Your task to perform on an android device: What's the weather? Image 0: 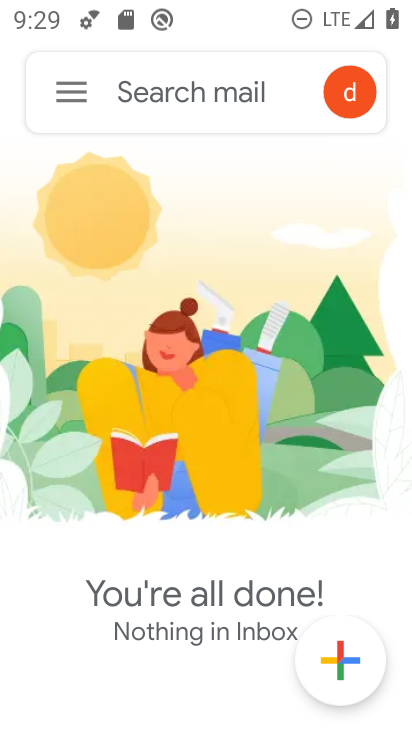
Step 0: press home button
Your task to perform on an android device: What's the weather? Image 1: 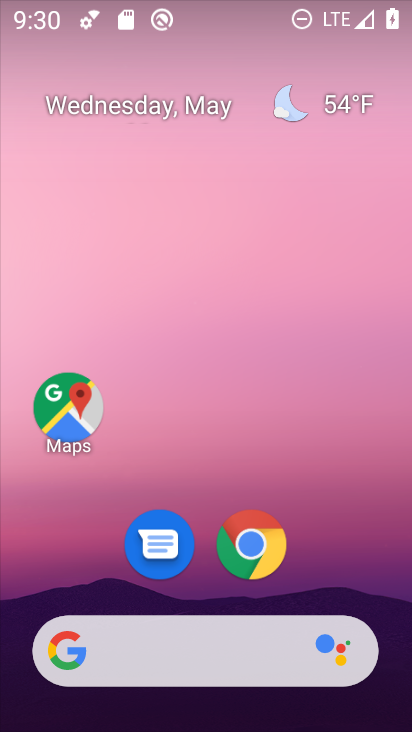
Step 1: click (335, 101)
Your task to perform on an android device: What's the weather? Image 2: 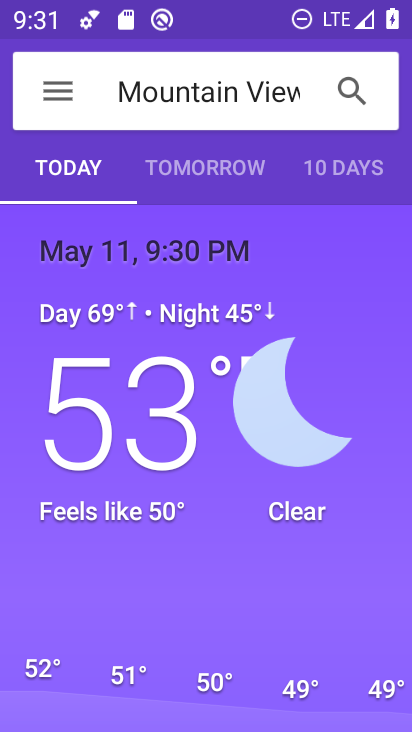
Step 2: task complete